Your task to perform on an android device: What's the weather going to be tomorrow? Image 0: 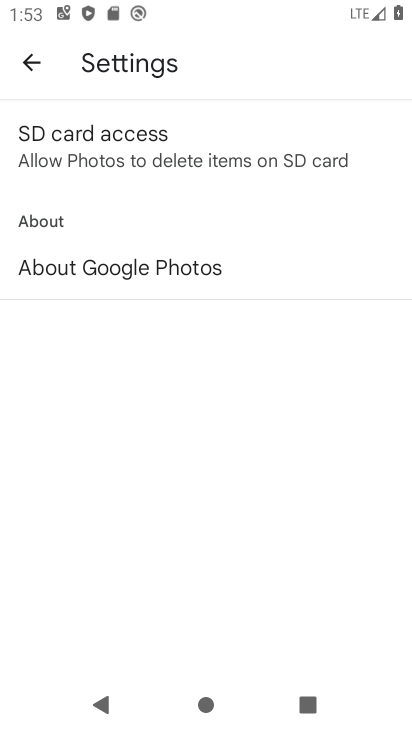
Step 0: press home button
Your task to perform on an android device: What's the weather going to be tomorrow? Image 1: 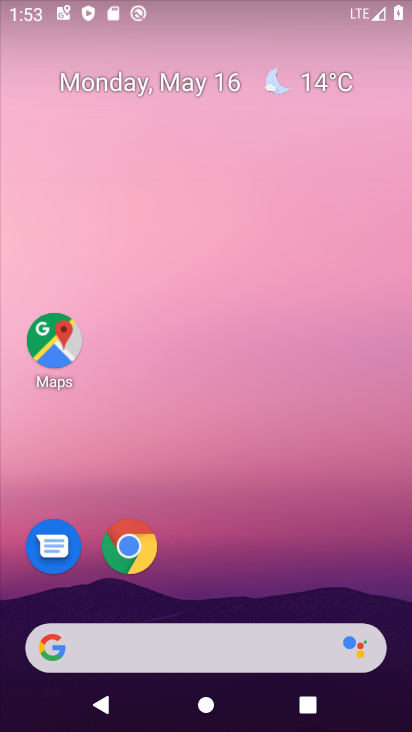
Step 1: drag from (189, 686) to (201, 171)
Your task to perform on an android device: What's the weather going to be tomorrow? Image 2: 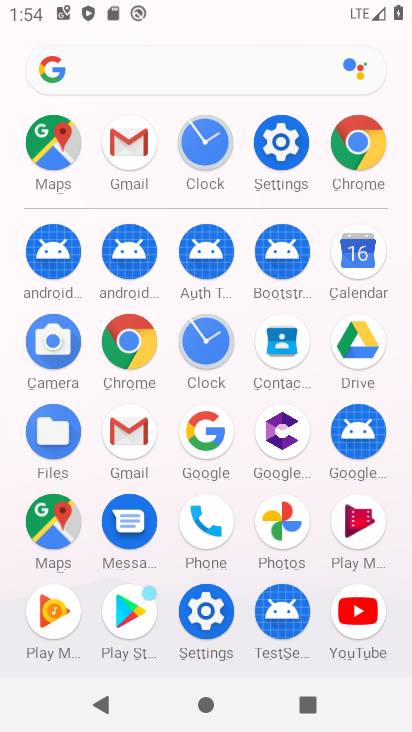
Step 2: click (117, 69)
Your task to perform on an android device: What's the weather going to be tomorrow? Image 3: 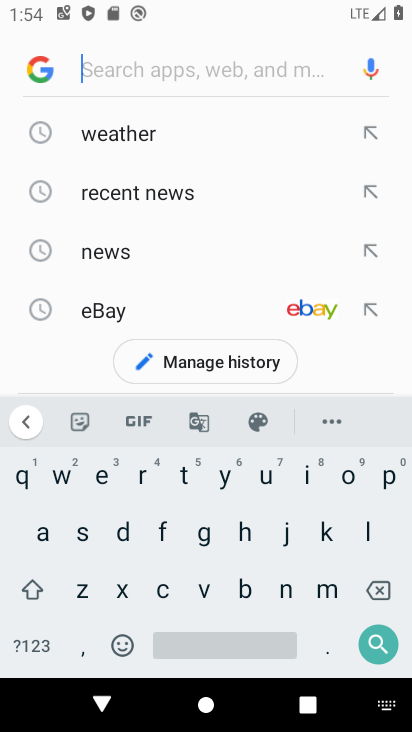
Step 3: click (178, 136)
Your task to perform on an android device: What's the weather going to be tomorrow? Image 4: 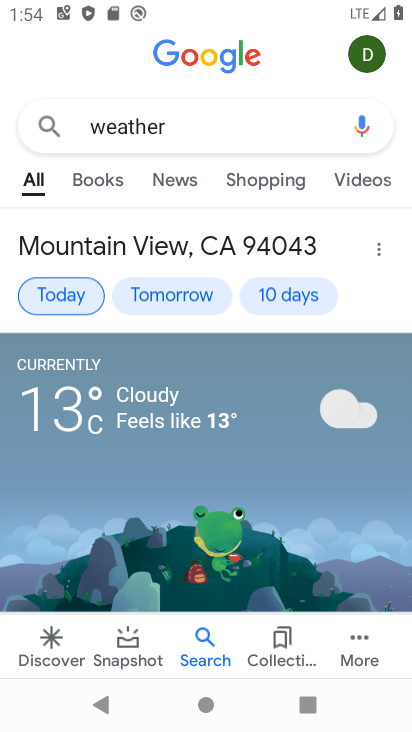
Step 4: click (177, 294)
Your task to perform on an android device: What's the weather going to be tomorrow? Image 5: 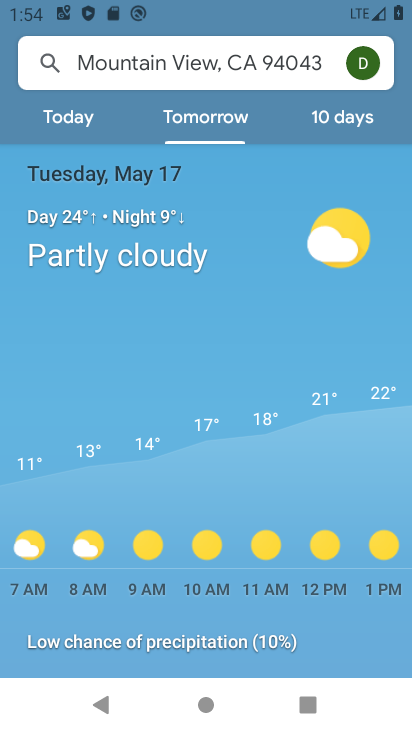
Step 5: task complete